Your task to perform on an android device: toggle pop-ups in chrome Image 0: 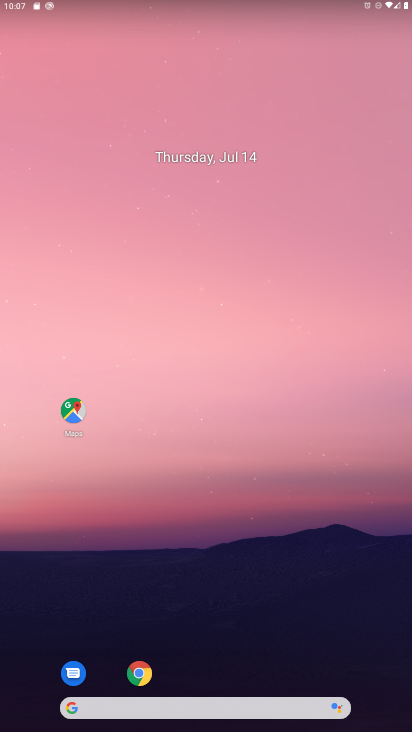
Step 0: click (140, 673)
Your task to perform on an android device: toggle pop-ups in chrome Image 1: 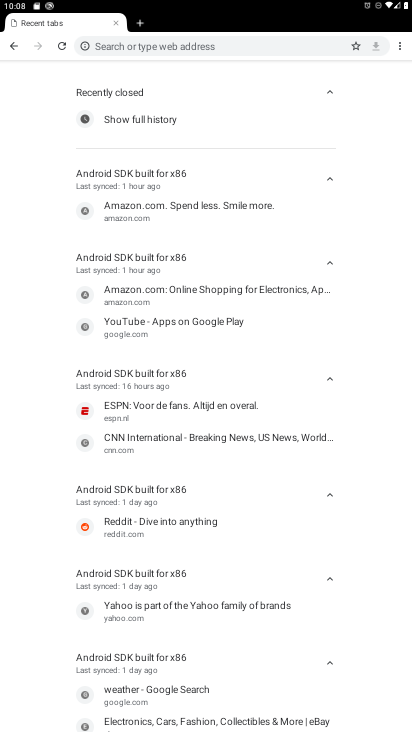
Step 1: click (401, 47)
Your task to perform on an android device: toggle pop-ups in chrome Image 2: 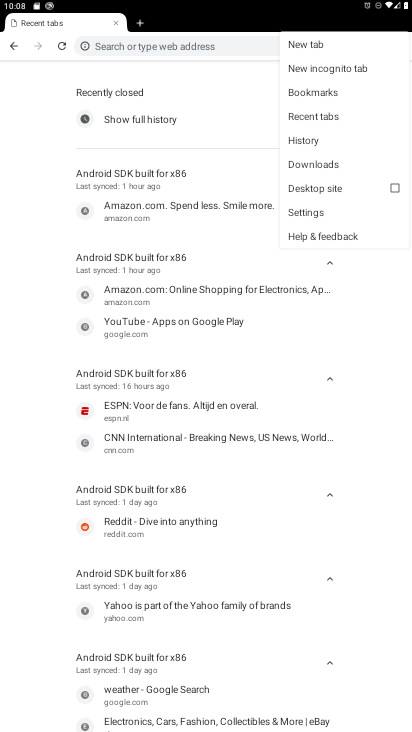
Step 2: click (305, 213)
Your task to perform on an android device: toggle pop-ups in chrome Image 3: 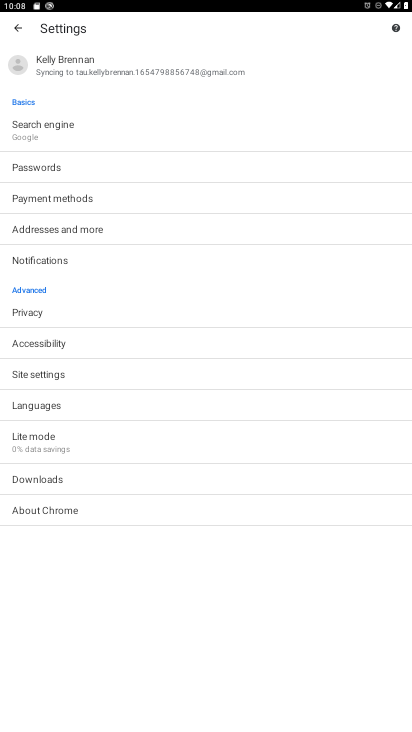
Step 3: click (57, 375)
Your task to perform on an android device: toggle pop-ups in chrome Image 4: 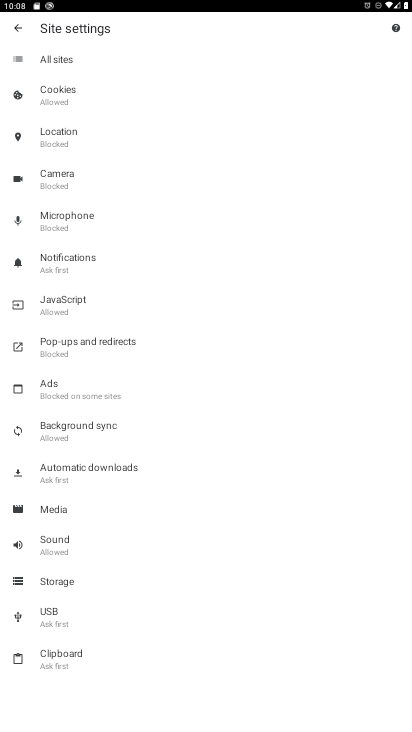
Step 4: click (94, 345)
Your task to perform on an android device: toggle pop-ups in chrome Image 5: 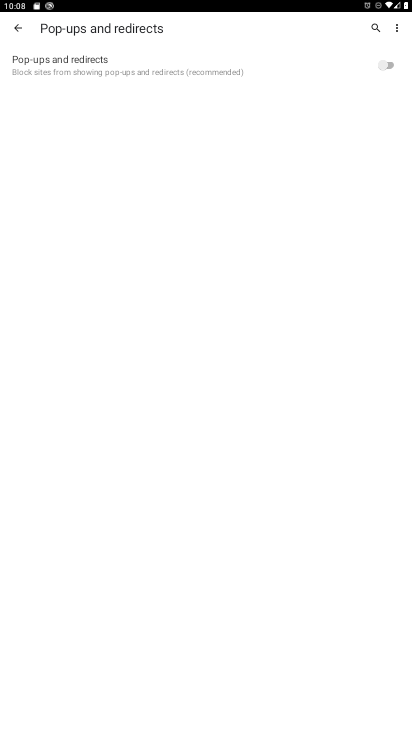
Step 5: click (392, 72)
Your task to perform on an android device: toggle pop-ups in chrome Image 6: 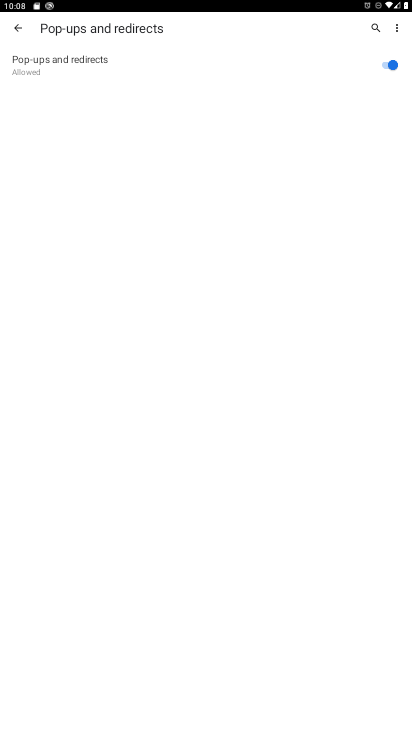
Step 6: task complete